Your task to perform on an android device: Open wifi settings Image 0: 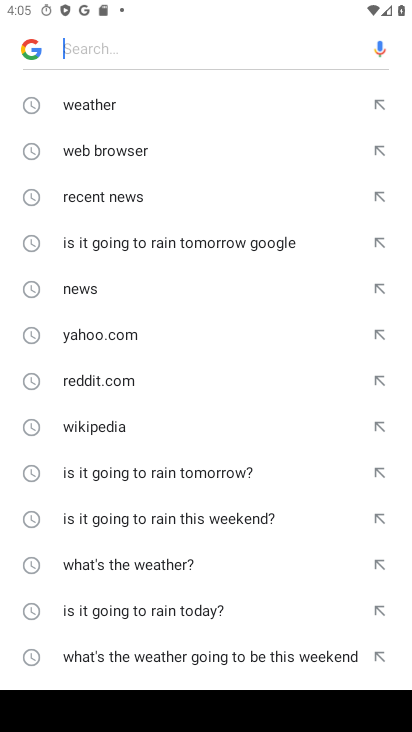
Step 0: press home button
Your task to perform on an android device: Open wifi settings Image 1: 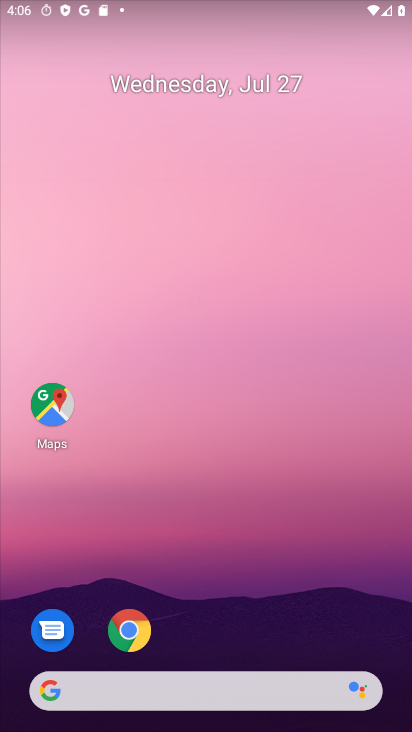
Step 1: drag from (200, 557) to (191, 33)
Your task to perform on an android device: Open wifi settings Image 2: 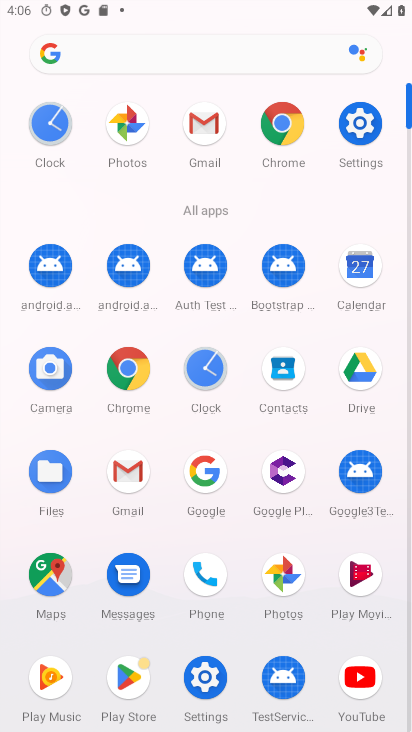
Step 2: click (208, 681)
Your task to perform on an android device: Open wifi settings Image 3: 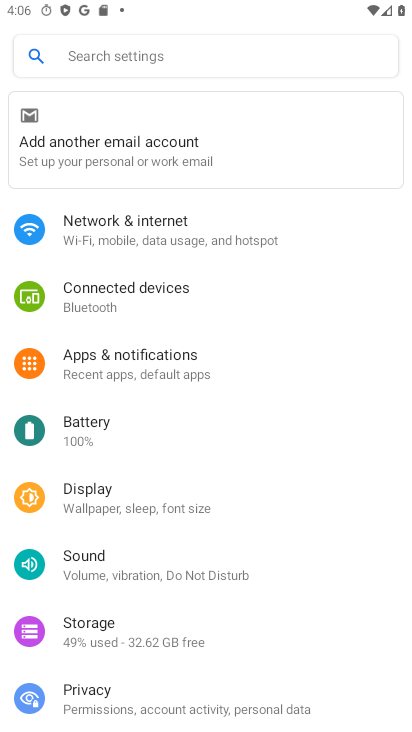
Step 3: click (164, 228)
Your task to perform on an android device: Open wifi settings Image 4: 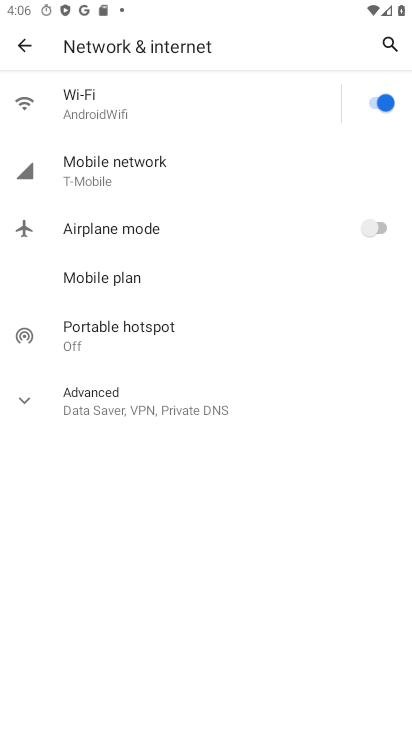
Step 4: click (76, 98)
Your task to perform on an android device: Open wifi settings Image 5: 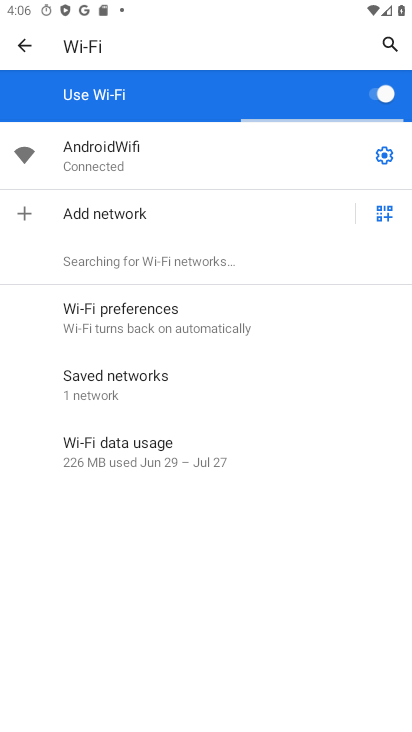
Step 5: task complete